Your task to perform on an android device: What's the news in Malaysia? Image 0: 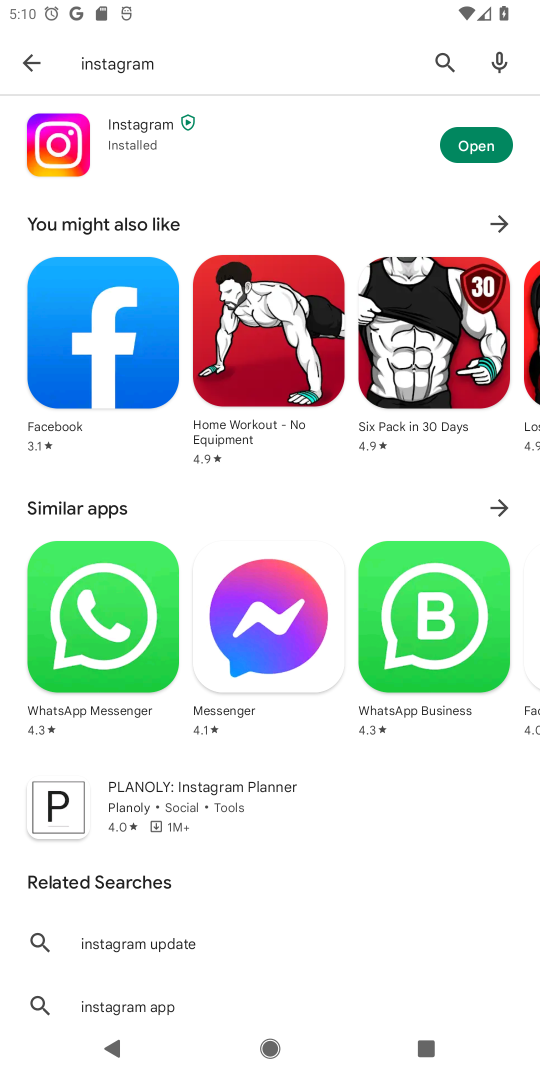
Step 0: press home button
Your task to perform on an android device: What's the news in Malaysia? Image 1: 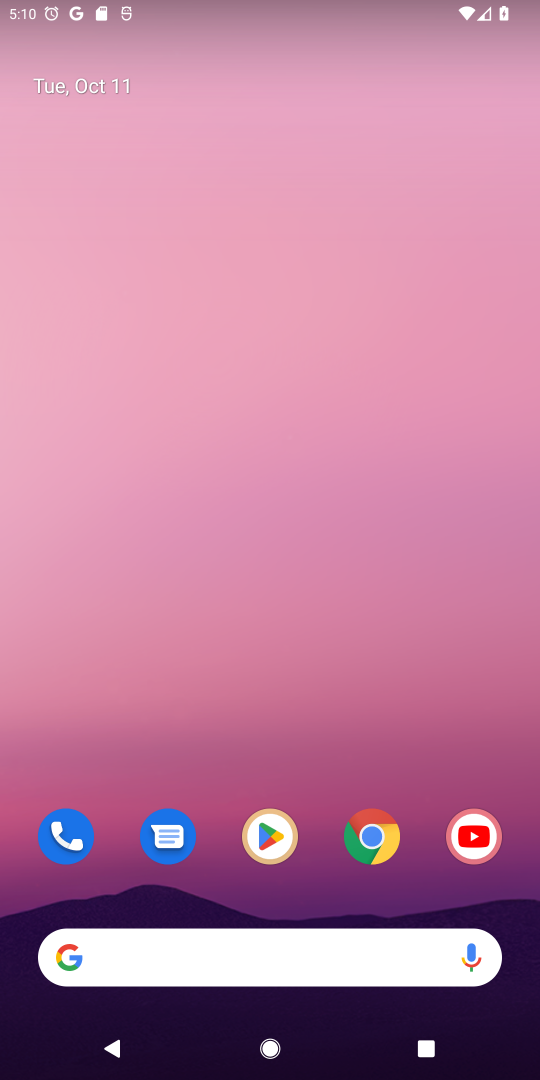
Step 1: click (121, 969)
Your task to perform on an android device: What's the news in Malaysia? Image 2: 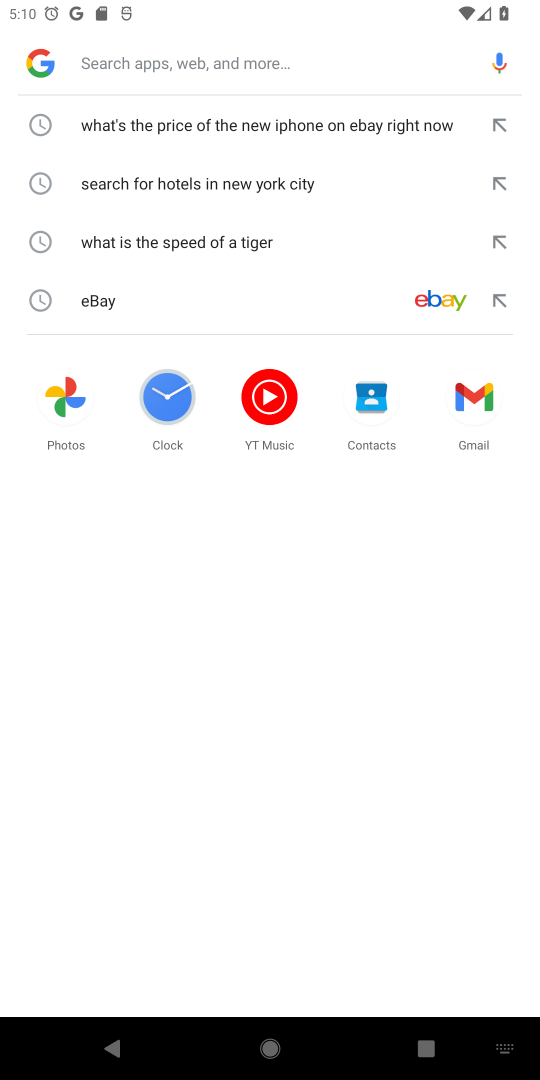
Step 2: type "news in Malaysia"
Your task to perform on an android device: What's the news in Malaysia? Image 3: 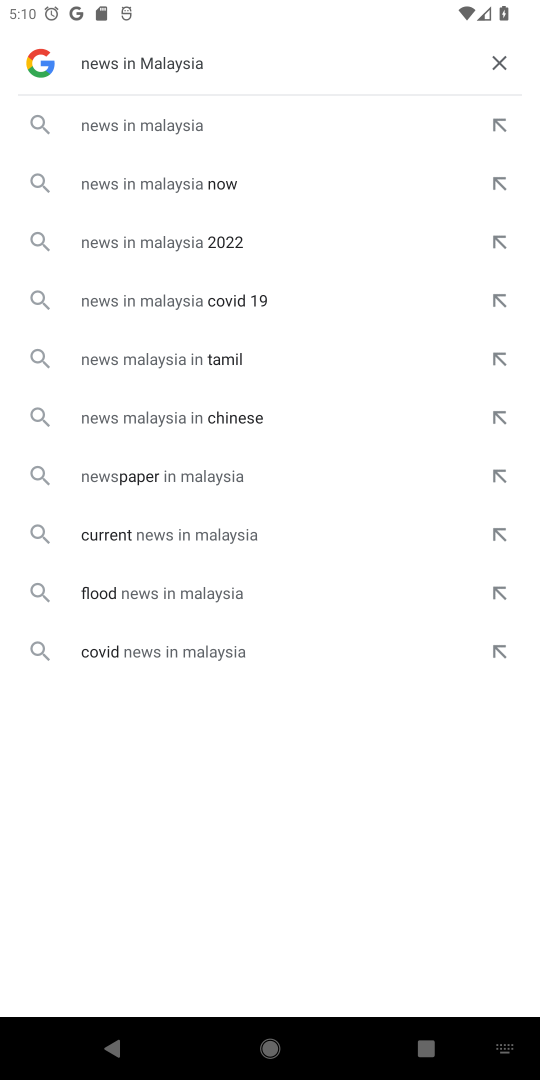
Step 3: click (280, 146)
Your task to perform on an android device: What's the news in Malaysia? Image 4: 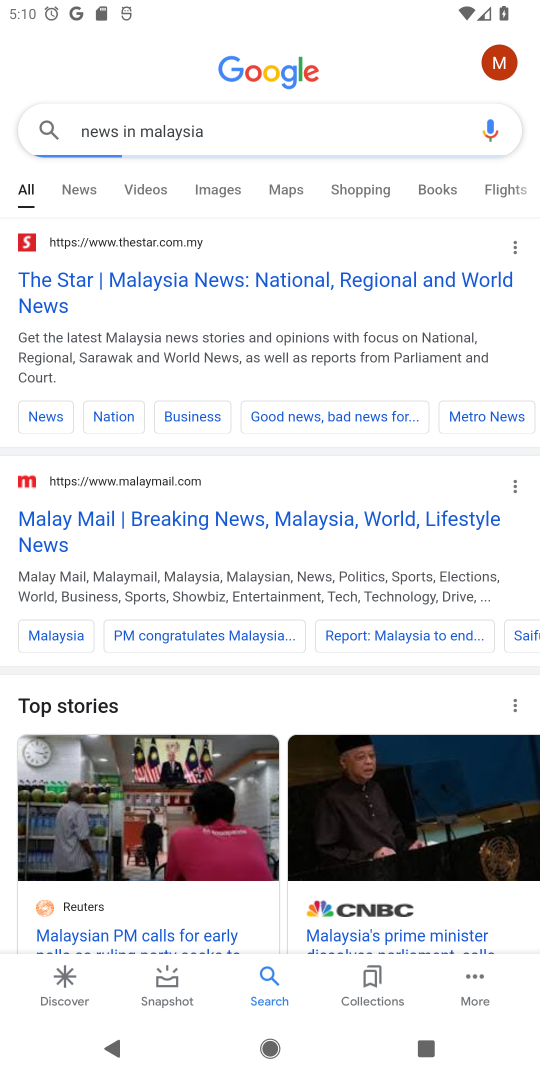
Step 4: task complete